Your task to perform on an android device: open app "Walmart Shopping & Grocery" (install if not already installed) Image 0: 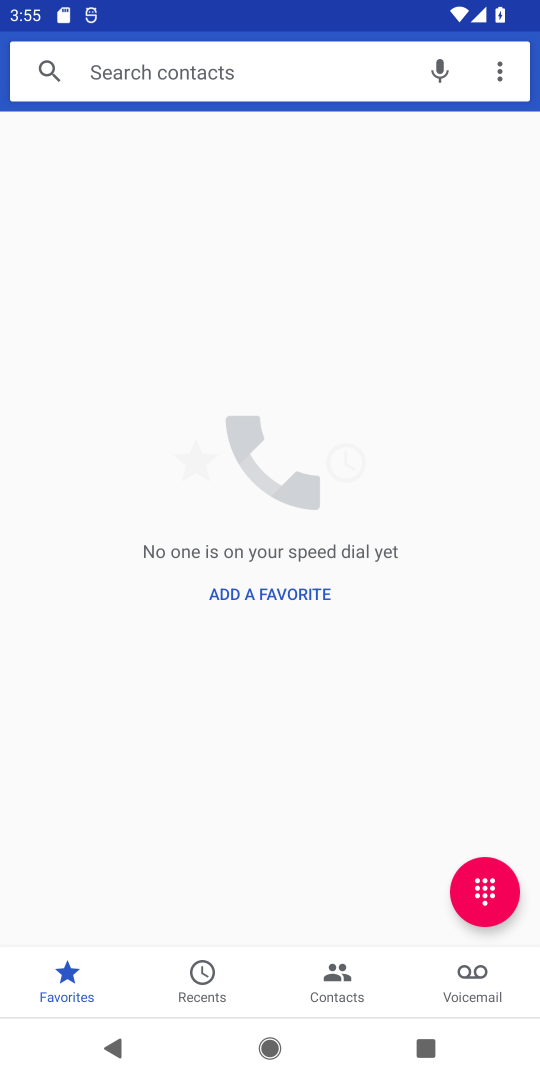
Step 0: press home button
Your task to perform on an android device: open app "Walmart Shopping & Grocery" (install if not already installed) Image 1: 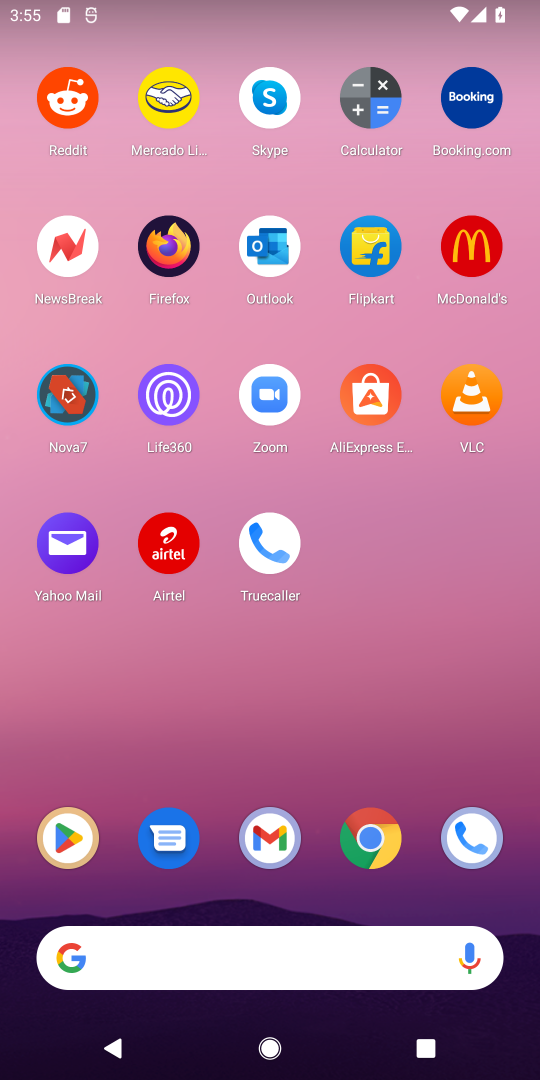
Step 1: click (87, 860)
Your task to perform on an android device: open app "Walmart Shopping & Grocery" (install if not already installed) Image 2: 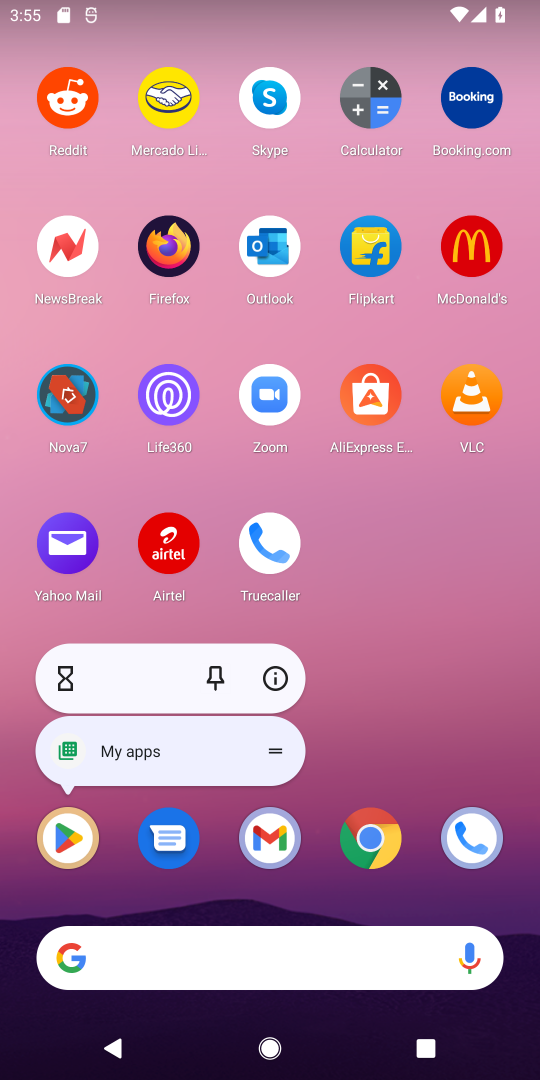
Step 2: click (63, 872)
Your task to perform on an android device: open app "Walmart Shopping & Grocery" (install if not already installed) Image 3: 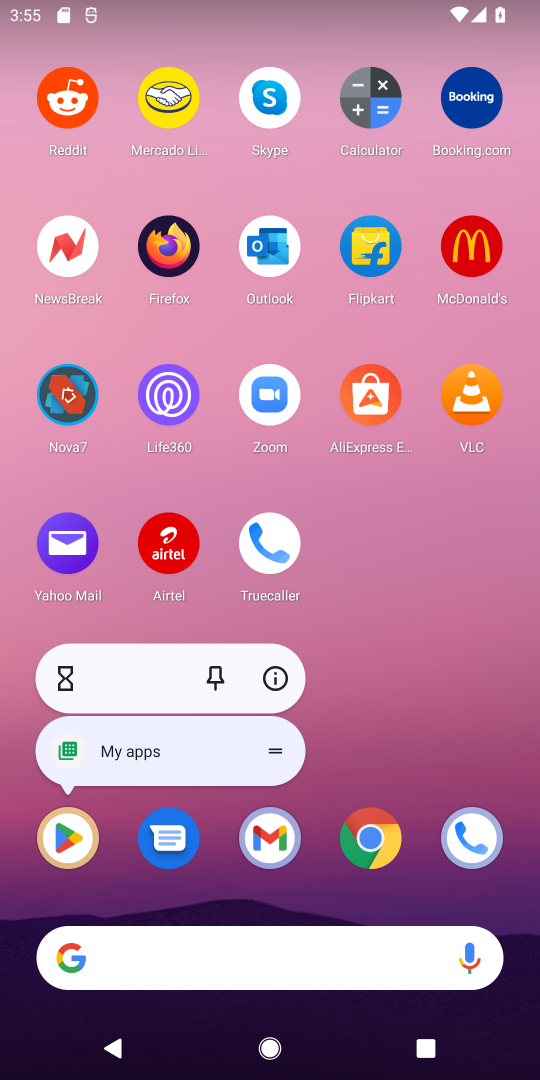
Step 3: click (55, 850)
Your task to perform on an android device: open app "Walmart Shopping & Grocery" (install if not already installed) Image 4: 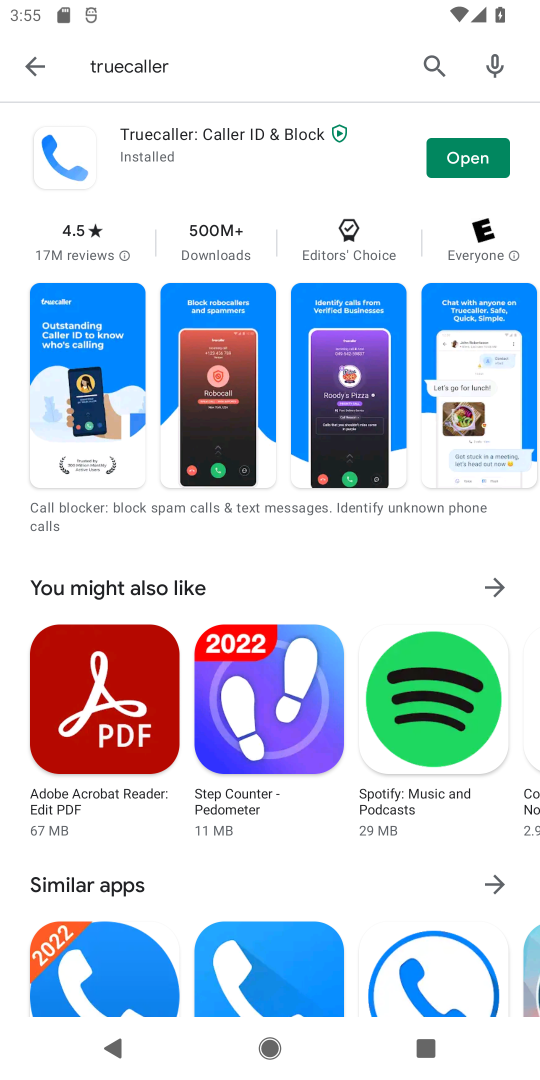
Step 4: click (444, 64)
Your task to perform on an android device: open app "Walmart Shopping & Grocery" (install if not already installed) Image 5: 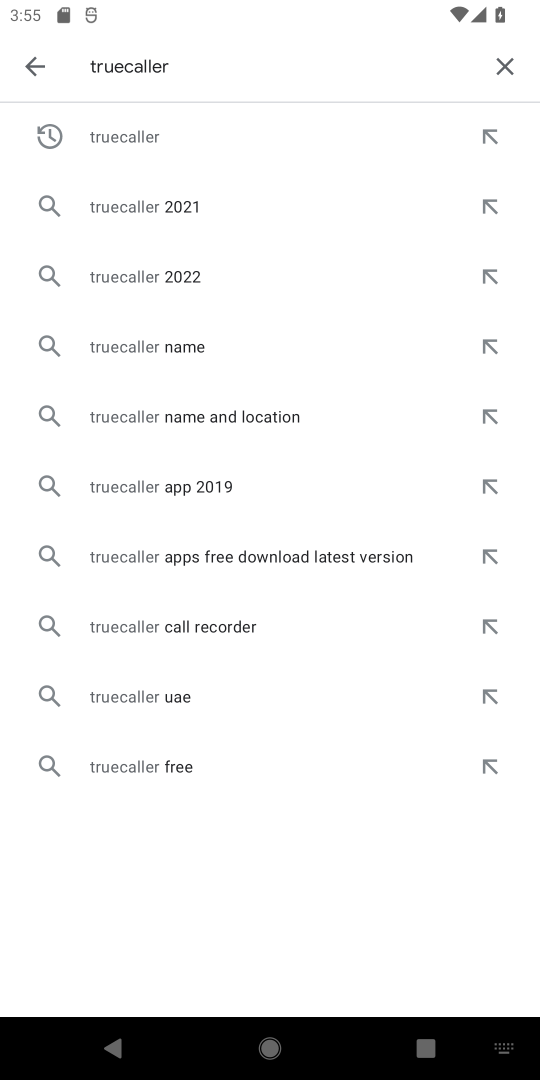
Step 5: click (491, 68)
Your task to perform on an android device: open app "Walmart Shopping & Grocery" (install if not already installed) Image 6: 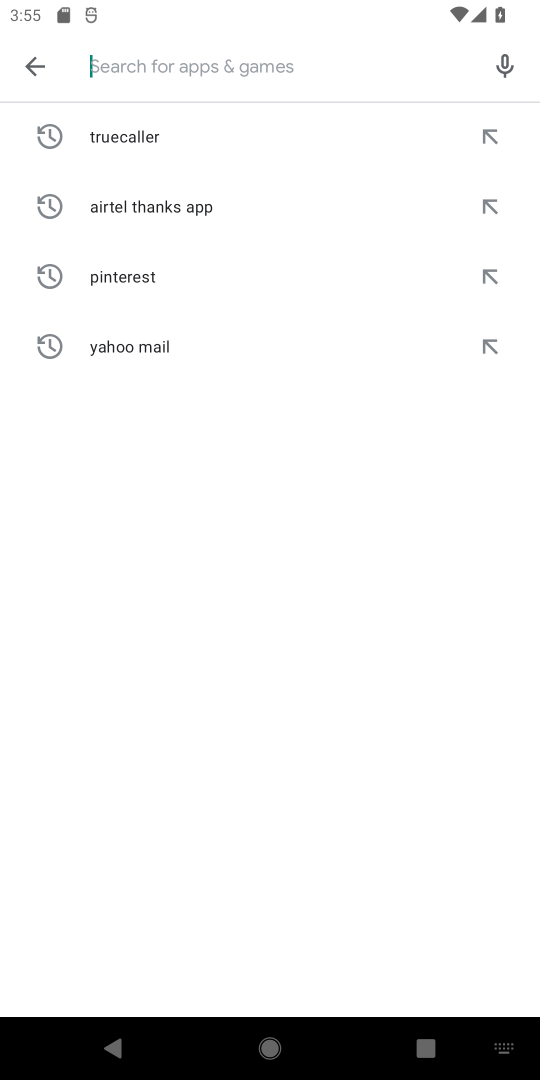
Step 6: type "Walmart Shopping & Grocery"
Your task to perform on an android device: open app "Walmart Shopping & Grocery" (install if not already installed) Image 7: 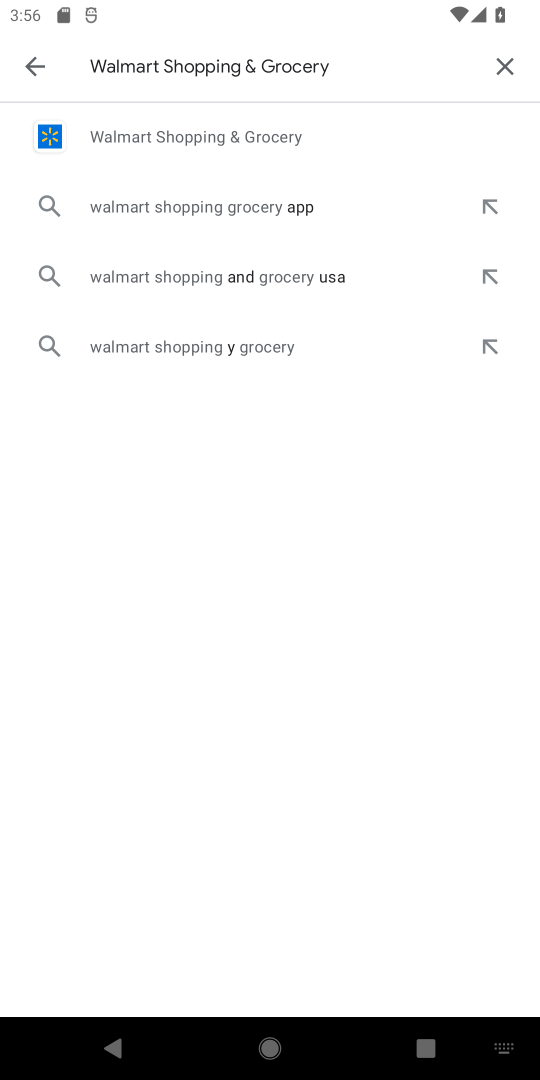
Step 7: click (137, 141)
Your task to perform on an android device: open app "Walmart Shopping & Grocery" (install if not already installed) Image 8: 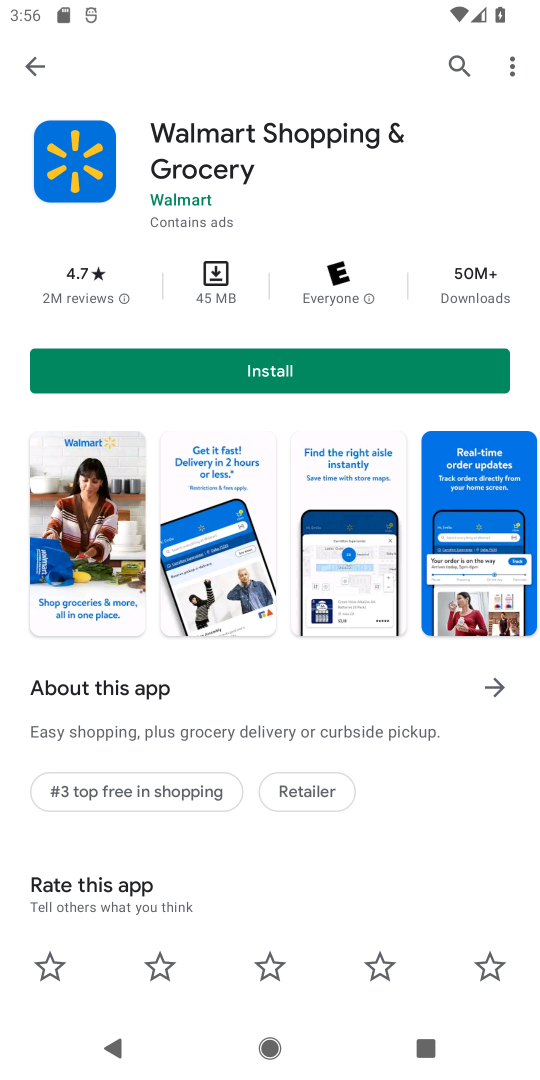
Step 8: click (192, 377)
Your task to perform on an android device: open app "Walmart Shopping & Grocery" (install if not already installed) Image 9: 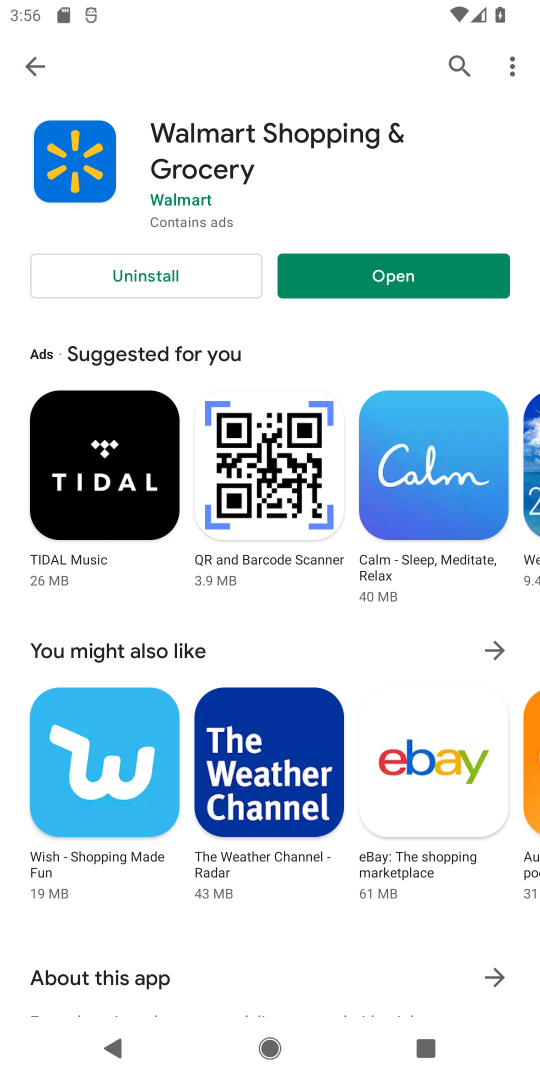
Step 9: click (301, 280)
Your task to perform on an android device: open app "Walmart Shopping & Grocery" (install if not already installed) Image 10: 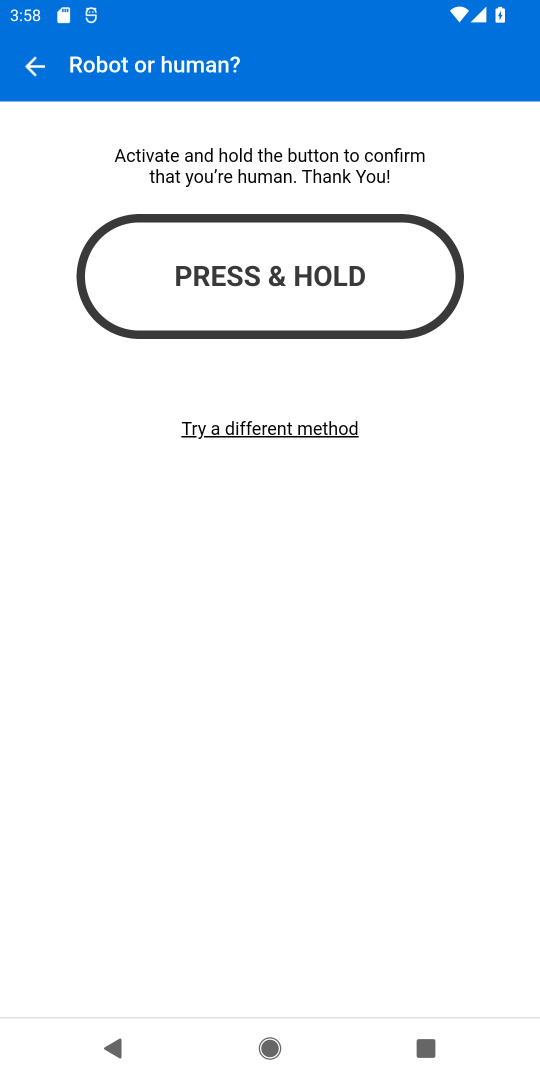
Step 10: press home button
Your task to perform on an android device: open app "Walmart Shopping & Grocery" (install if not already installed) Image 11: 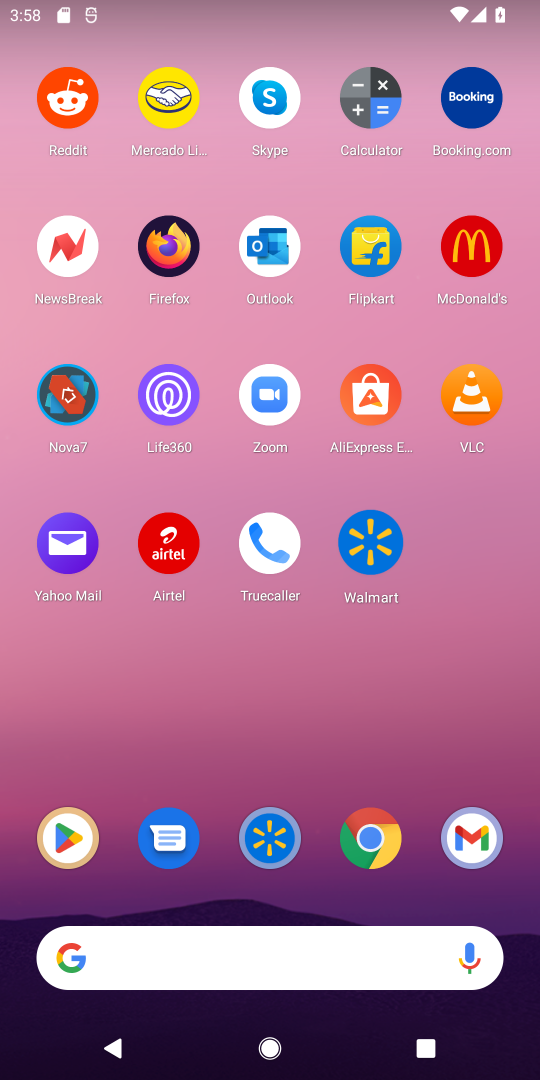
Step 11: click (76, 852)
Your task to perform on an android device: open app "Walmart Shopping & Grocery" (install if not already installed) Image 12: 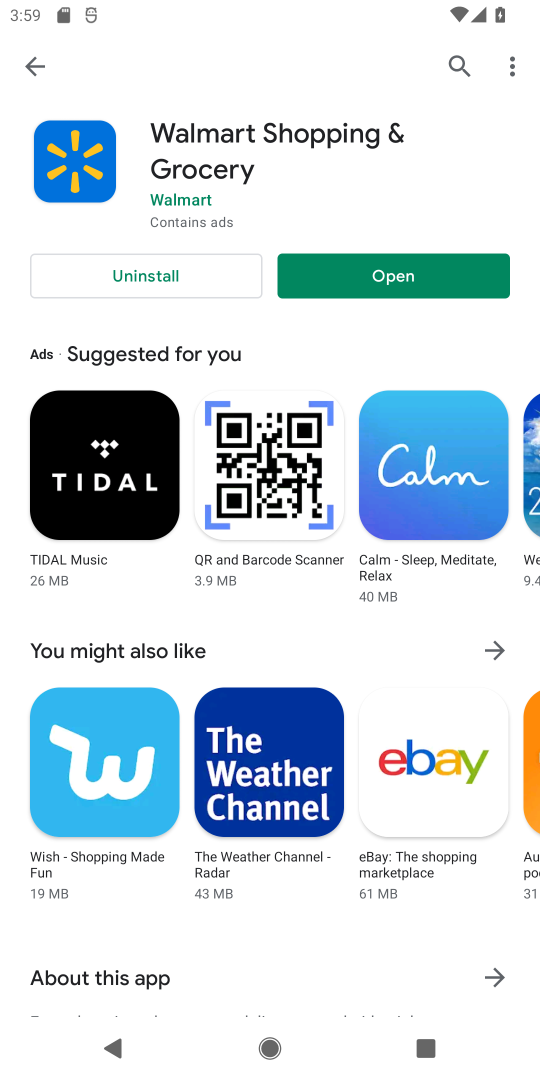
Step 12: click (450, 93)
Your task to perform on an android device: open app "Walmart Shopping & Grocery" (install if not already installed) Image 13: 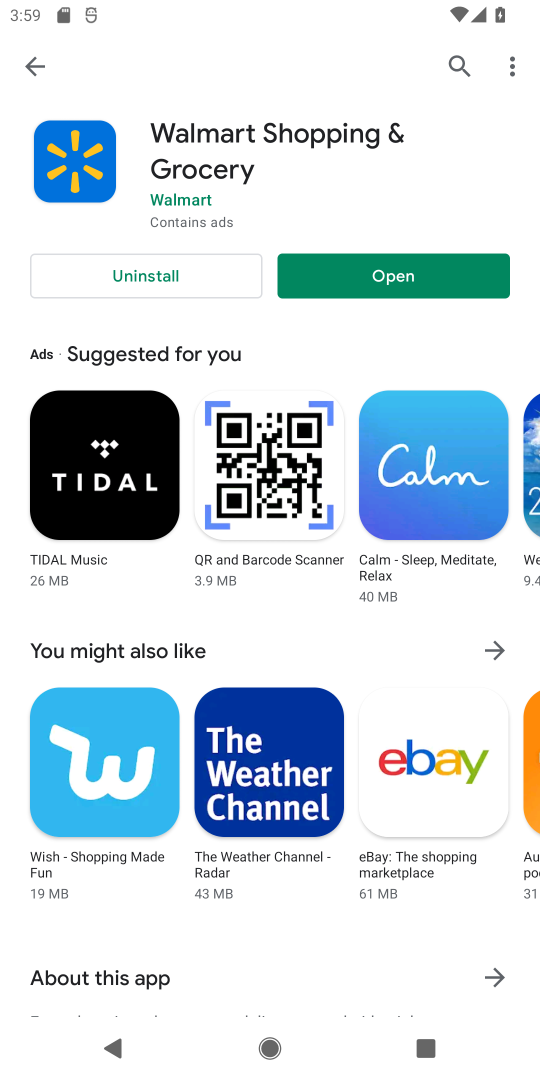
Step 13: click (471, 63)
Your task to perform on an android device: open app "Walmart Shopping & Grocery" (install if not already installed) Image 14: 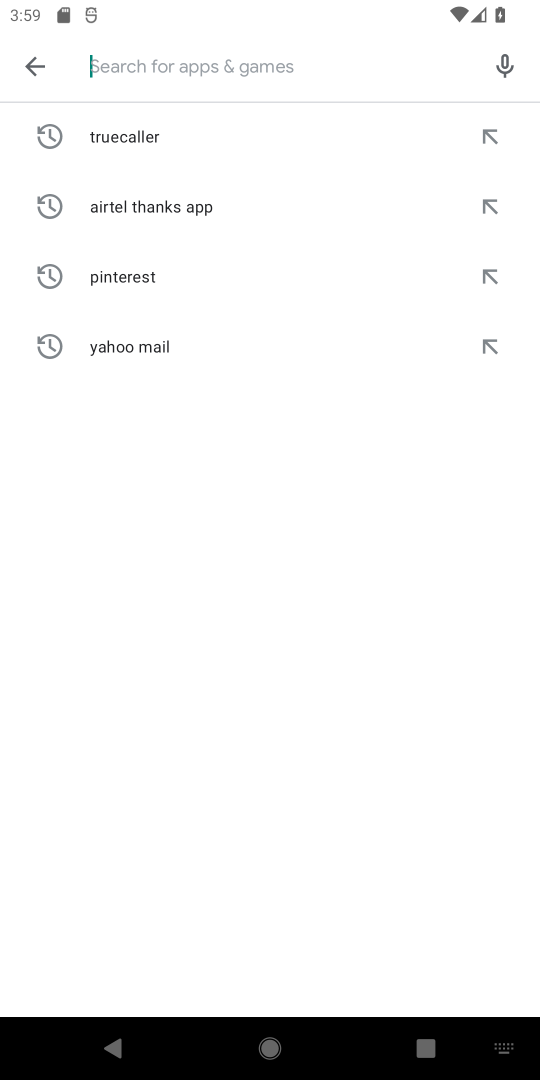
Step 14: type "Walmart Shopping & Grocery"
Your task to perform on an android device: open app "Walmart Shopping & Grocery" (install if not already installed) Image 15: 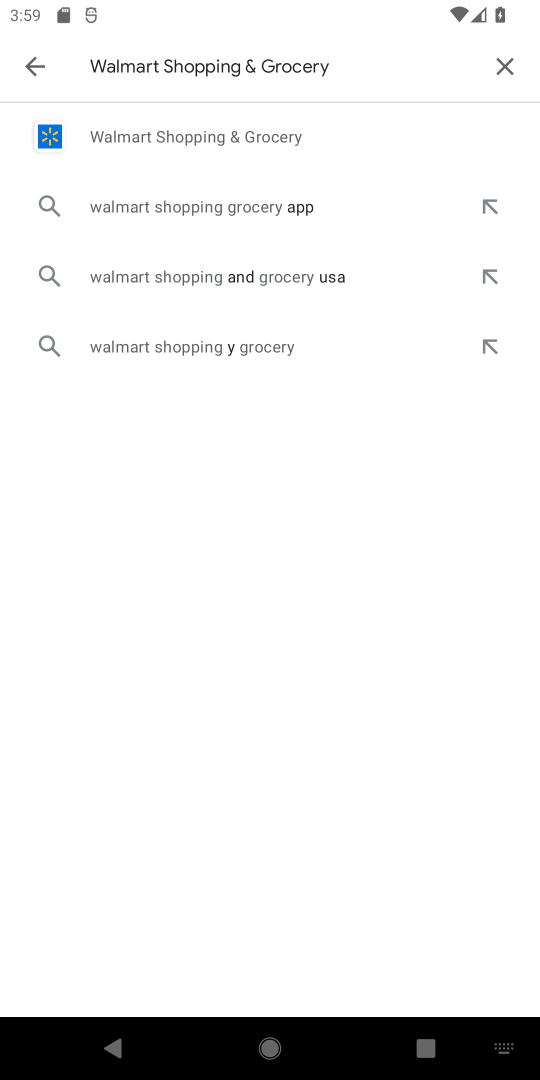
Step 15: click (249, 146)
Your task to perform on an android device: open app "Walmart Shopping & Grocery" (install if not already installed) Image 16: 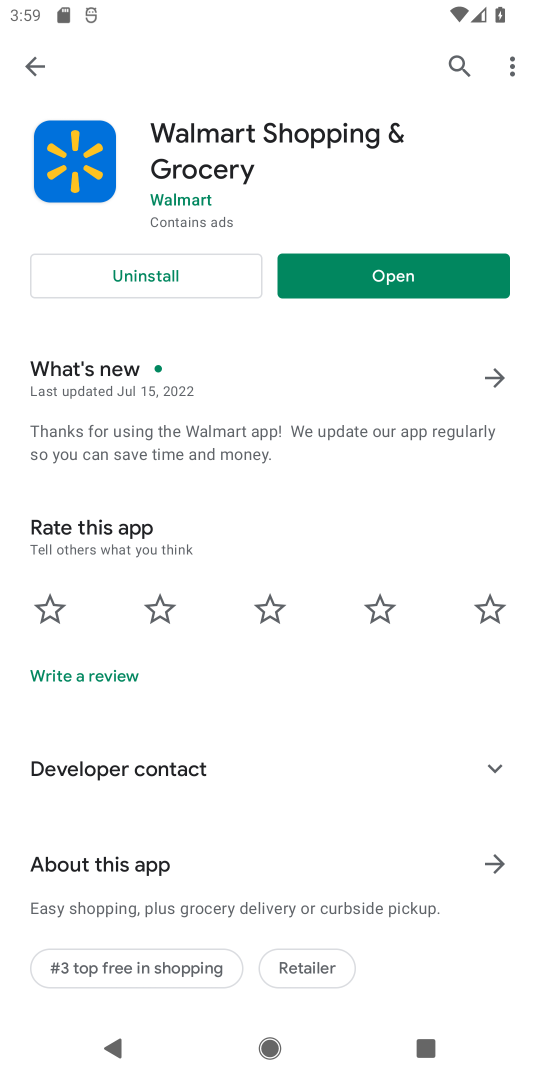
Step 16: click (428, 268)
Your task to perform on an android device: open app "Walmart Shopping & Grocery" (install if not already installed) Image 17: 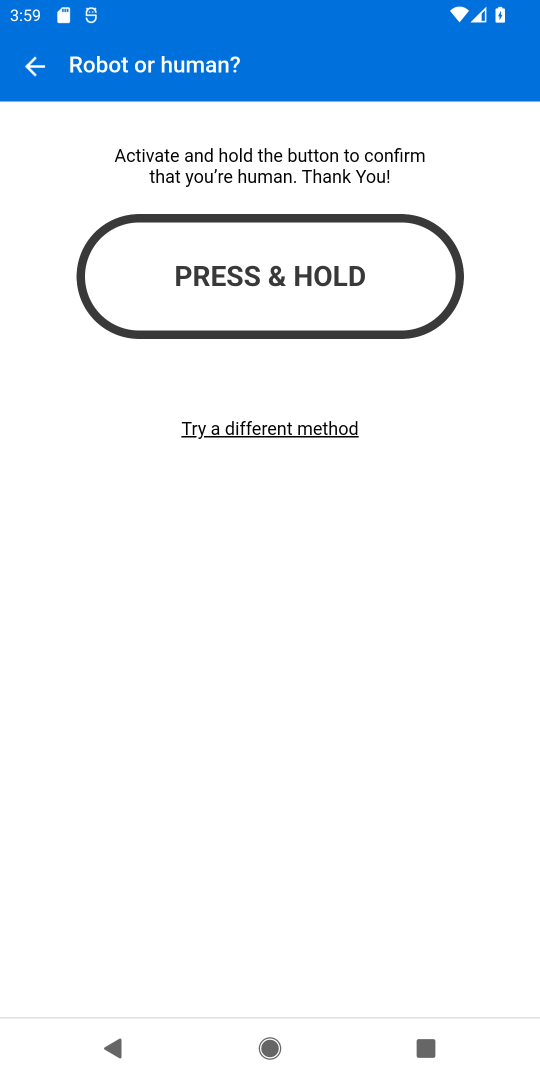
Step 17: task complete